Your task to perform on an android device: turn smart compose on in the gmail app Image 0: 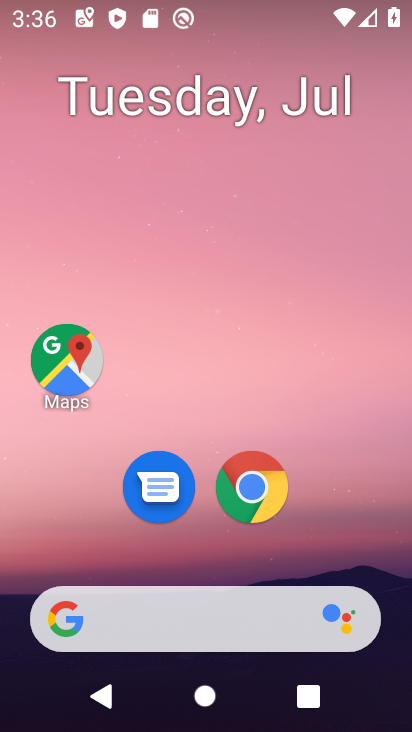
Step 0: drag from (191, 488) to (146, 137)
Your task to perform on an android device: turn smart compose on in the gmail app Image 1: 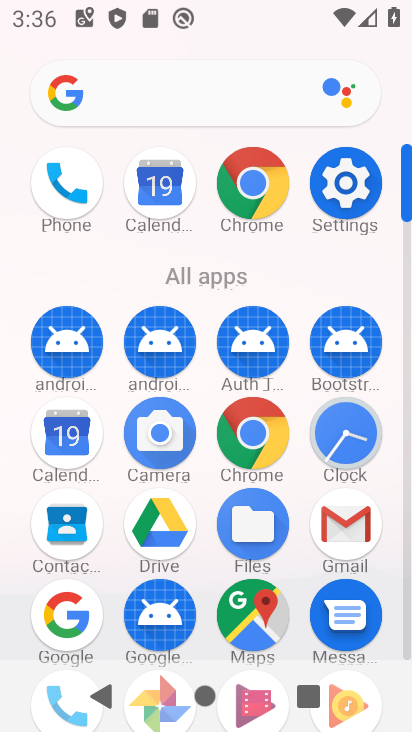
Step 1: click (346, 526)
Your task to perform on an android device: turn smart compose on in the gmail app Image 2: 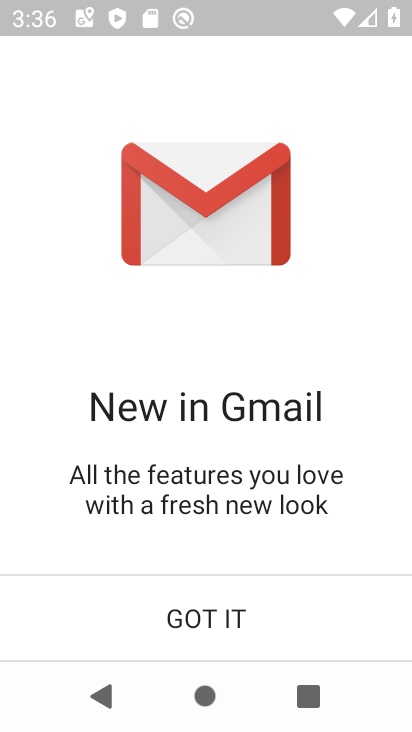
Step 2: click (214, 611)
Your task to perform on an android device: turn smart compose on in the gmail app Image 3: 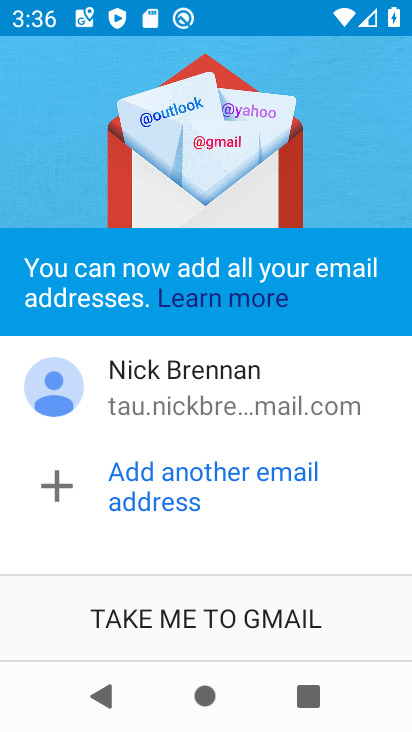
Step 3: click (208, 609)
Your task to perform on an android device: turn smart compose on in the gmail app Image 4: 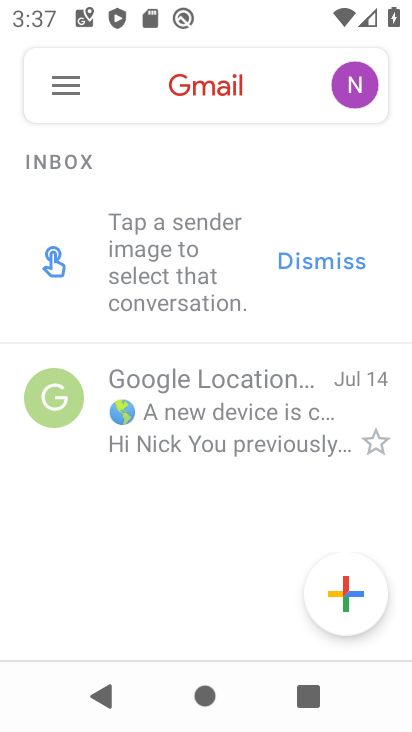
Step 4: click (64, 69)
Your task to perform on an android device: turn smart compose on in the gmail app Image 5: 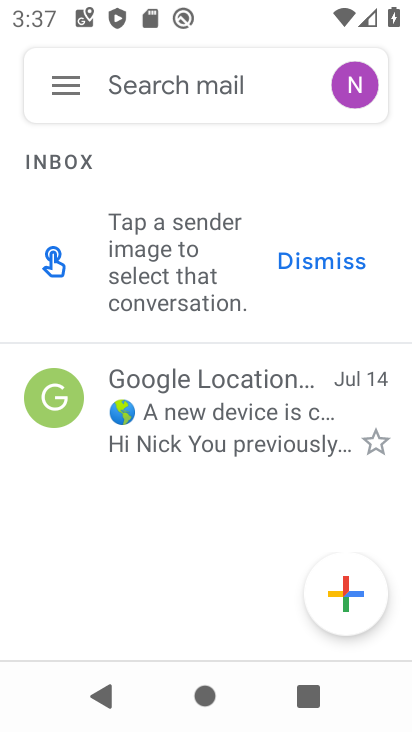
Step 5: click (67, 78)
Your task to perform on an android device: turn smart compose on in the gmail app Image 6: 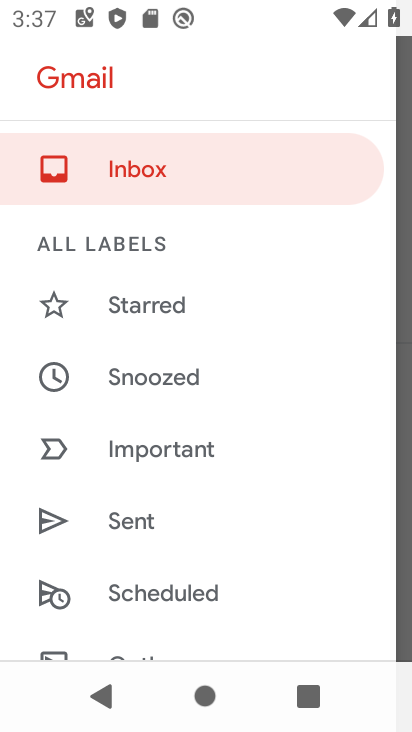
Step 6: drag from (212, 587) to (242, 2)
Your task to perform on an android device: turn smart compose on in the gmail app Image 7: 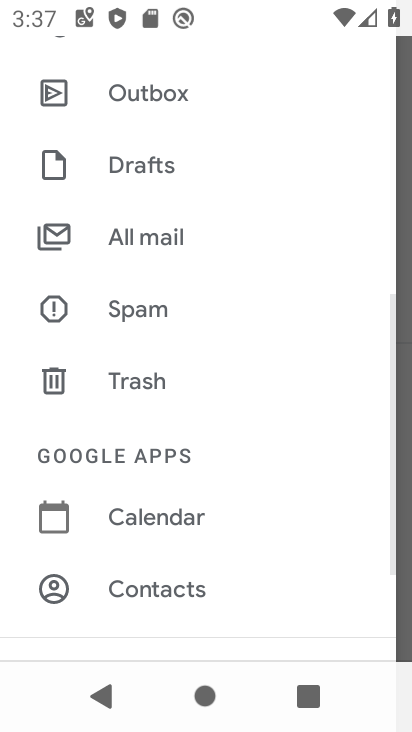
Step 7: drag from (159, 401) to (156, 87)
Your task to perform on an android device: turn smart compose on in the gmail app Image 8: 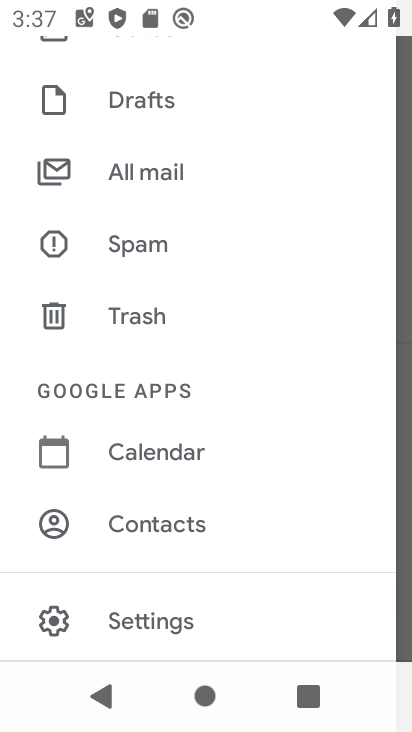
Step 8: click (158, 618)
Your task to perform on an android device: turn smart compose on in the gmail app Image 9: 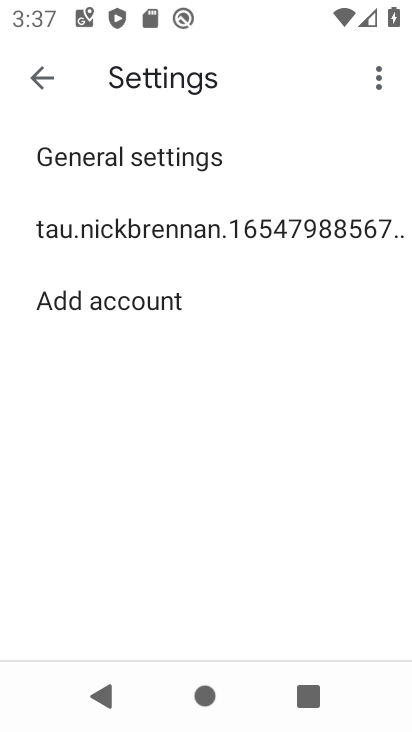
Step 9: click (121, 217)
Your task to perform on an android device: turn smart compose on in the gmail app Image 10: 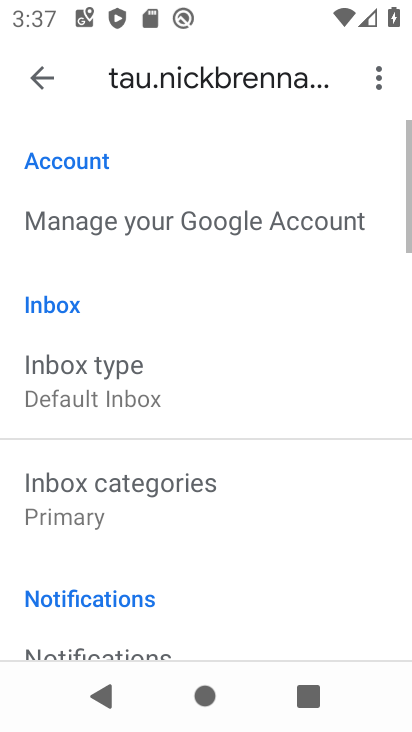
Step 10: task complete